Your task to perform on an android device: toggle javascript in the chrome app Image 0: 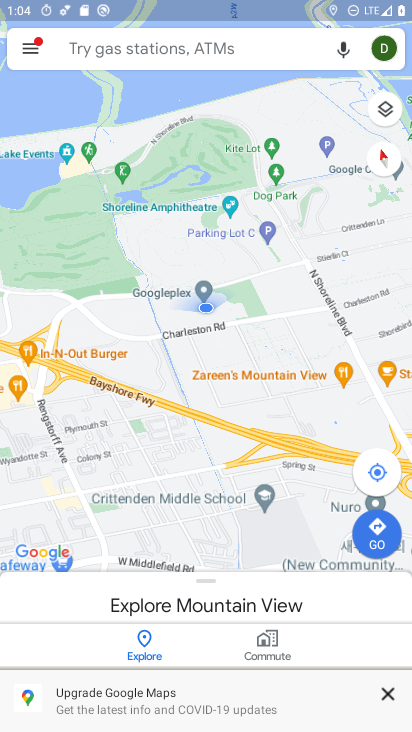
Step 0: press home button
Your task to perform on an android device: toggle javascript in the chrome app Image 1: 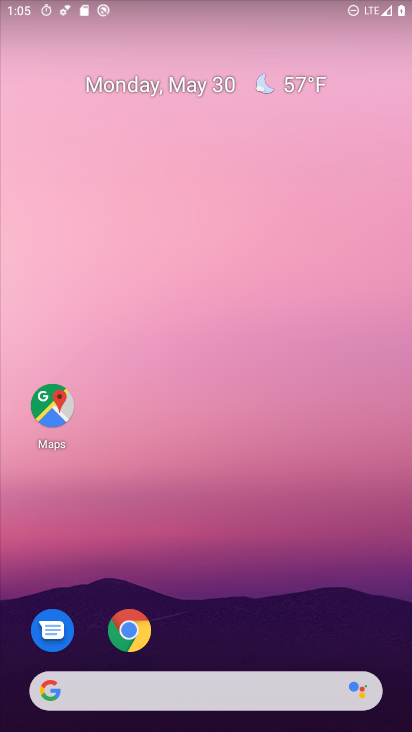
Step 1: drag from (256, 716) to (237, 41)
Your task to perform on an android device: toggle javascript in the chrome app Image 2: 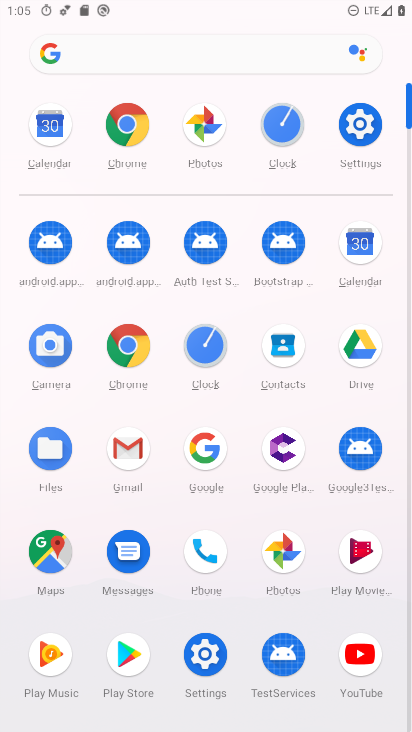
Step 2: click (133, 112)
Your task to perform on an android device: toggle javascript in the chrome app Image 3: 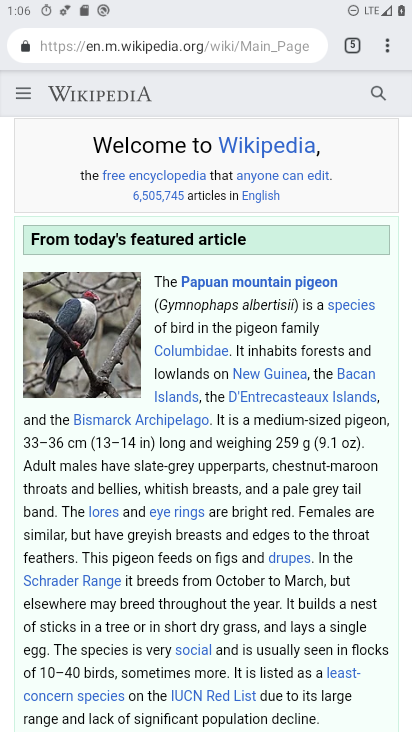
Step 3: click (387, 48)
Your task to perform on an android device: toggle javascript in the chrome app Image 4: 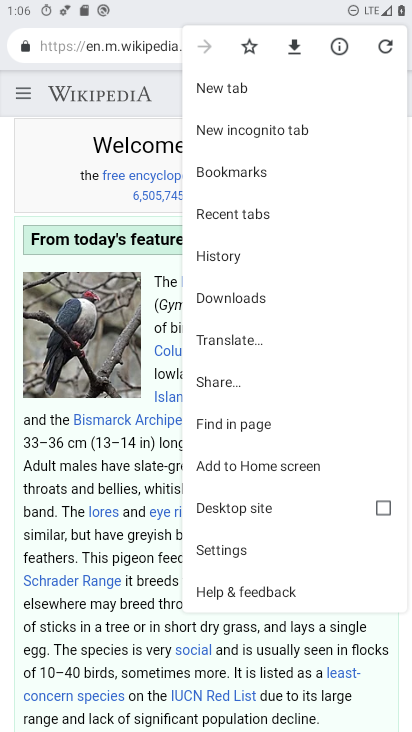
Step 4: click (220, 545)
Your task to perform on an android device: toggle javascript in the chrome app Image 5: 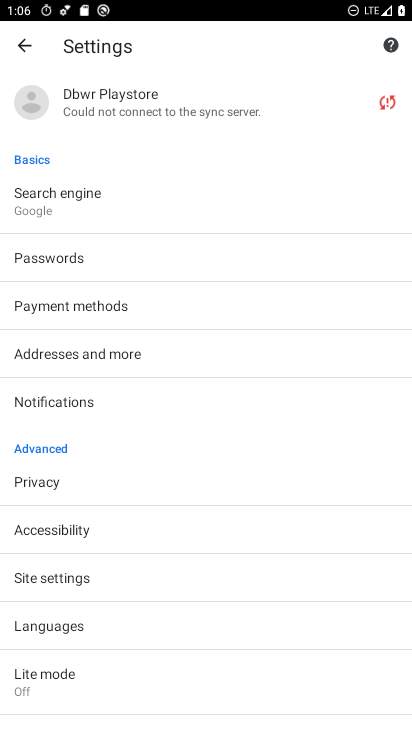
Step 5: click (73, 567)
Your task to perform on an android device: toggle javascript in the chrome app Image 6: 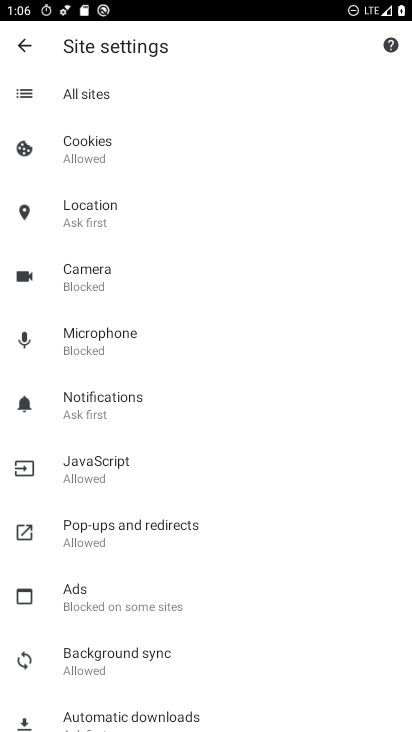
Step 6: click (139, 481)
Your task to perform on an android device: toggle javascript in the chrome app Image 7: 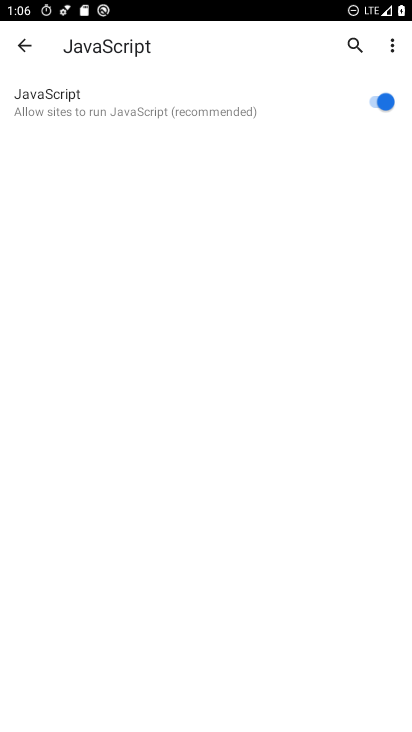
Step 7: task complete